Your task to perform on an android device: toggle location history Image 0: 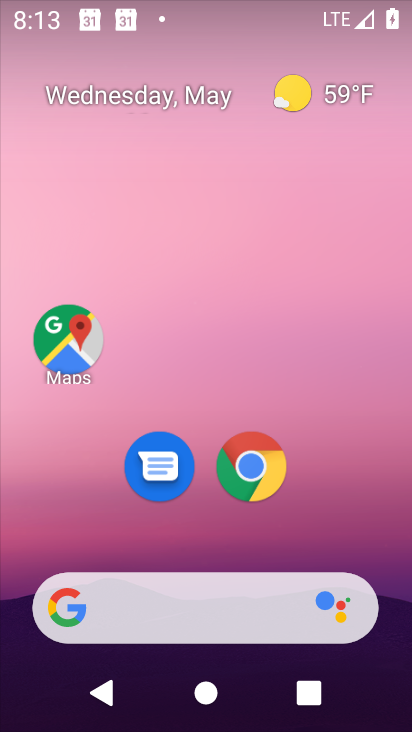
Step 0: drag from (313, 529) to (345, 246)
Your task to perform on an android device: toggle location history Image 1: 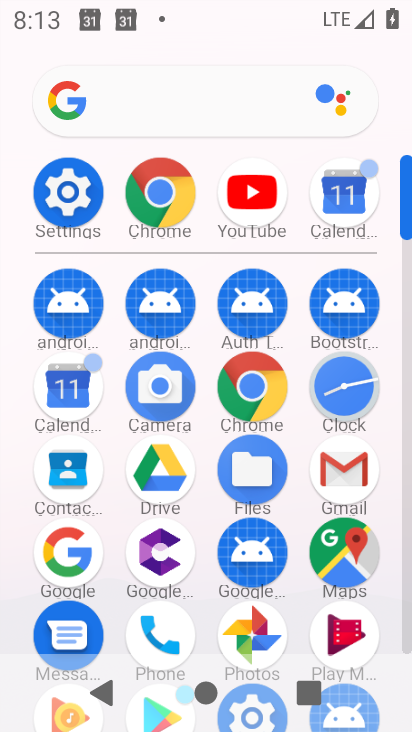
Step 1: click (69, 185)
Your task to perform on an android device: toggle location history Image 2: 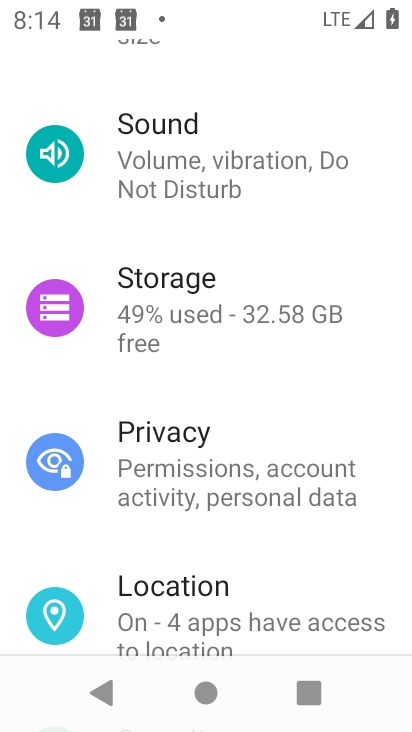
Step 2: click (195, 597)
Your task to perform on an android device: toggle location history Image 3: 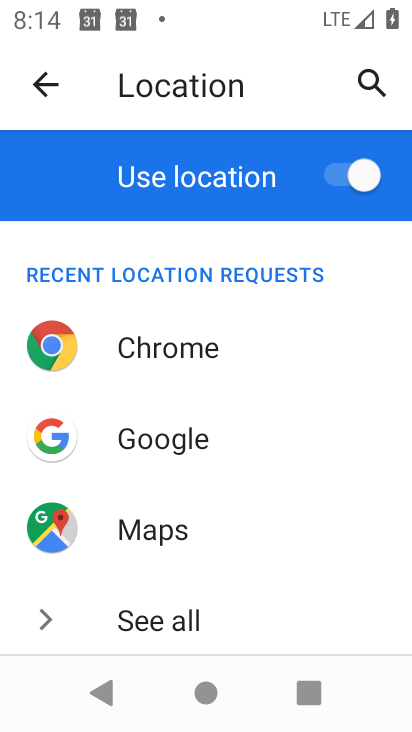
Step 3: drag from (244, 559) to (327, 159)
Your task to perform on an android device: toggle location history Image 4: 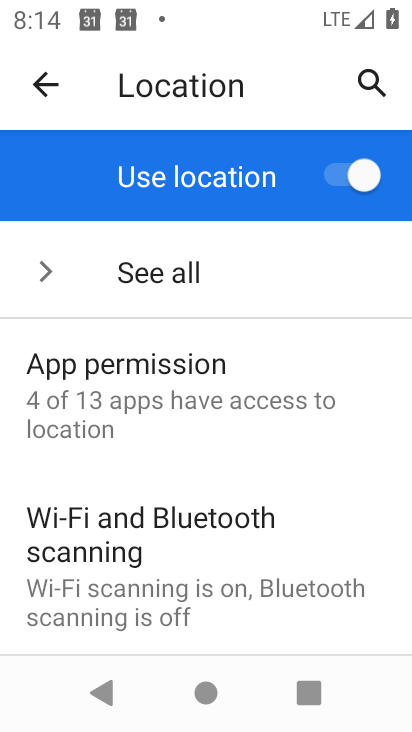
Step 4: drag from (140, 595) to (236, 223)
Your task to perform on an android device: toggle location history Image 5: 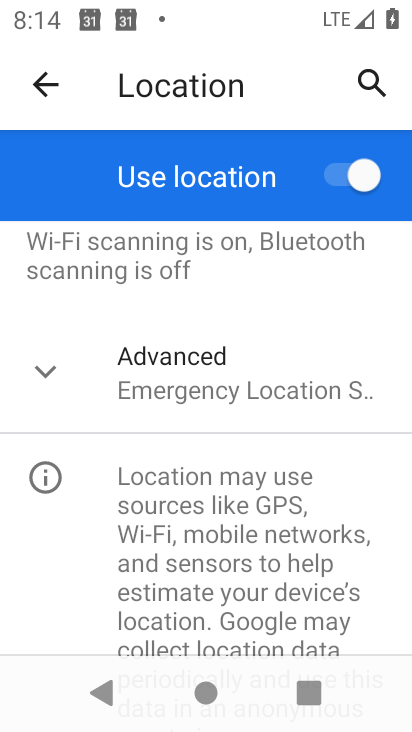
Step 5: click (228, 387)
Your task to perform on an android device: toggle location history Image 6: 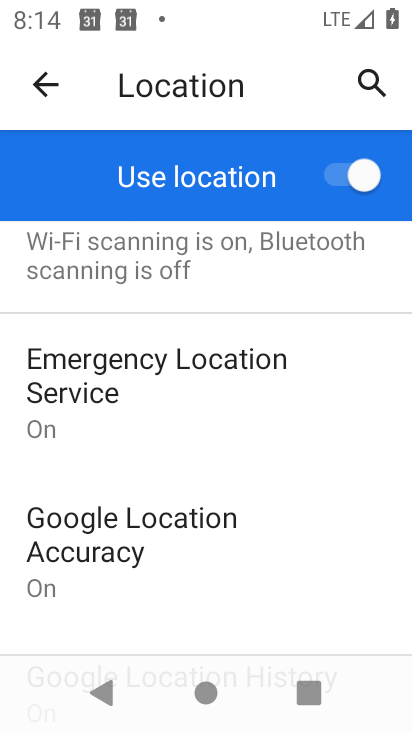
Step 6: drag from (247, 606) to (292, 280)
Your task to perform on an android device: toggle location history Image 7: 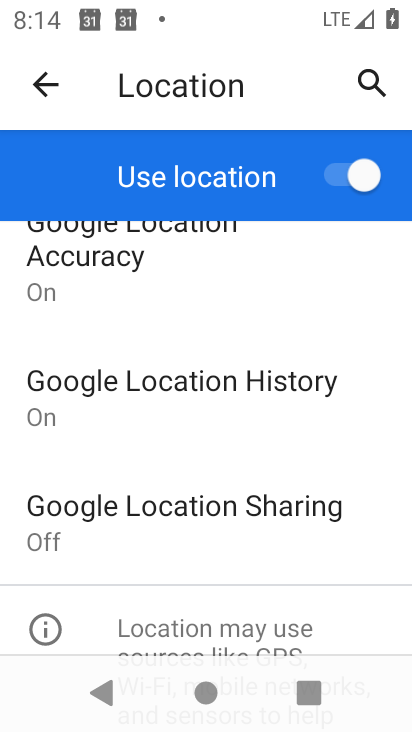
Step 7: click (219, 362)
Your task to perform on an android device: toggle location history Image 8: 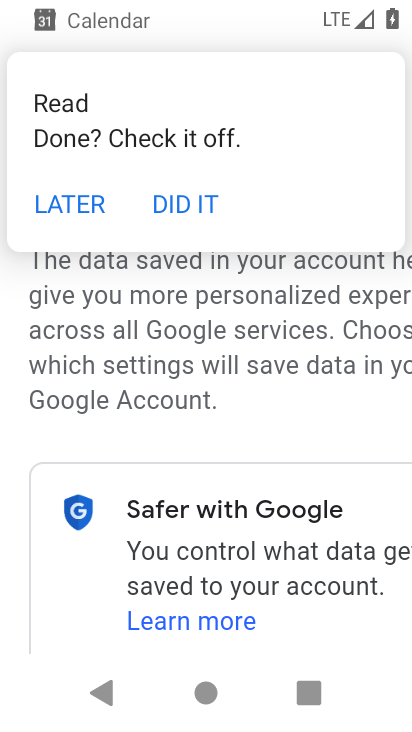
Step 8: drag from (297, 573) to (316, 200)
Your task to perform on an android device: toggle location history Image 9: 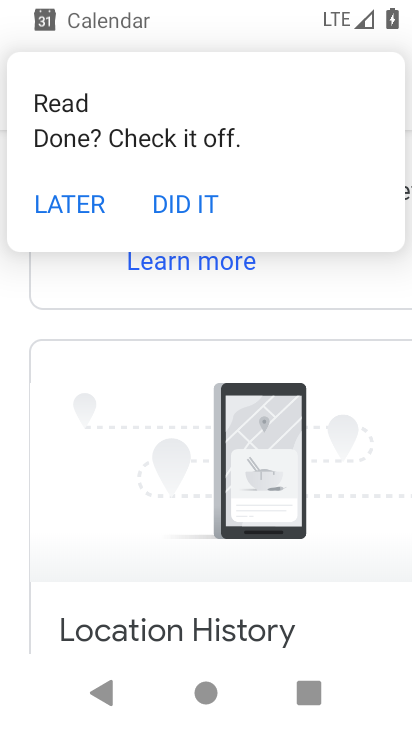
Step 9: drag from (293, 568) to (369, 128)
Your task to perform on an android device: toggle location history Image 10: 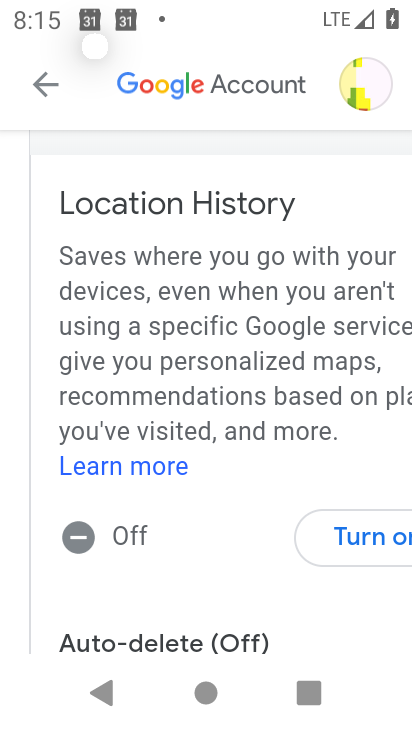
Step 10: click (325, 532)
Your task to perform on an android device: toggle location history Image 11: 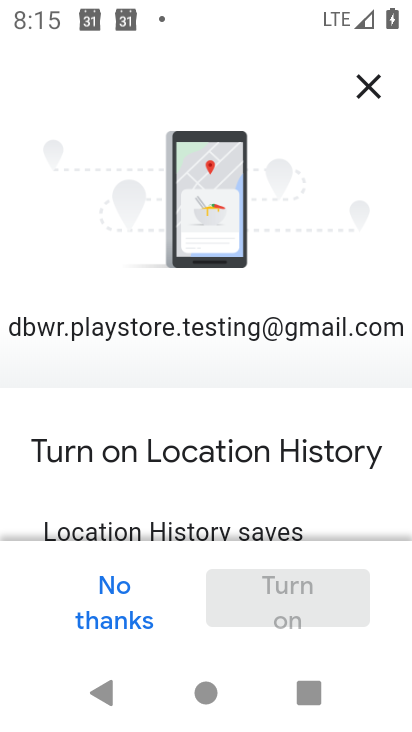
Step 11: task complete